Your task to perform on an android device: Go to Reddit.com Image 0: 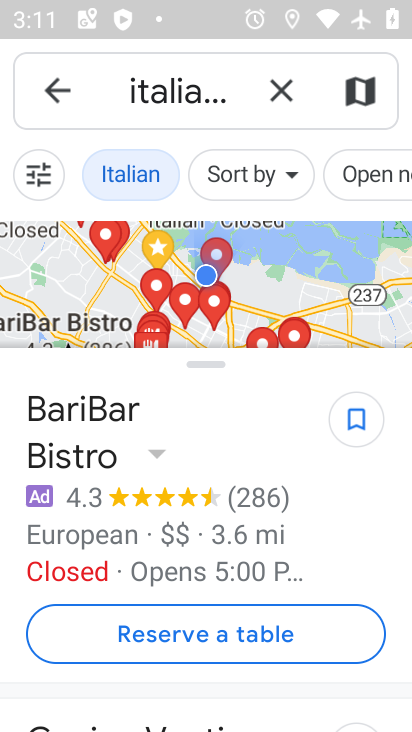
Step 0: press home button
Your task to perform on an android device: Go to Reddit.com Image 1: 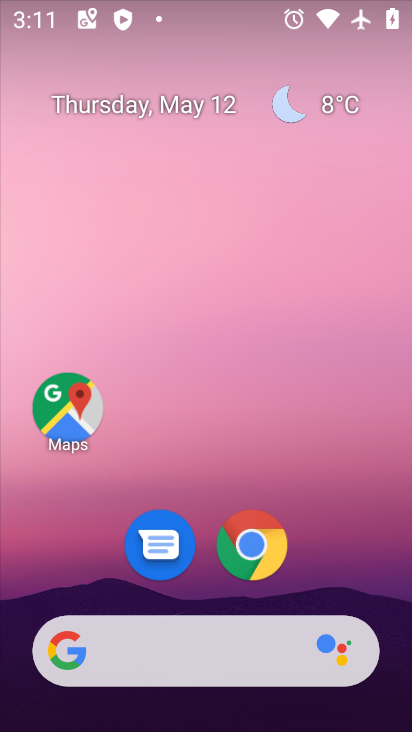
Step 1: click (255, 553)
Your task to perform on an android device: Go to Reddit.com Image 2: 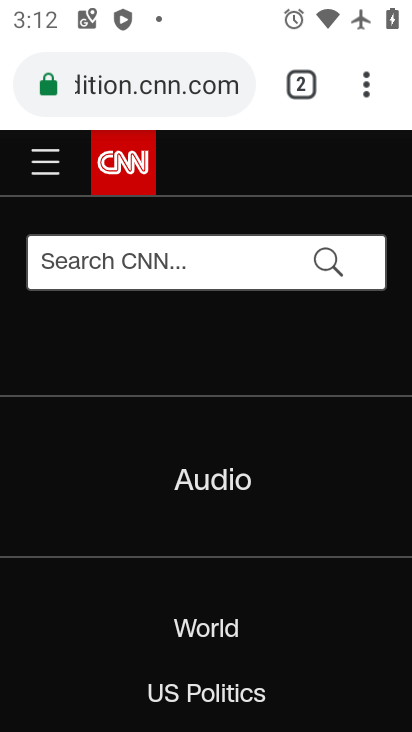
Step 2: click (147, 83)
Your task to perform on an android device: Go to Reddit.com Image 3: 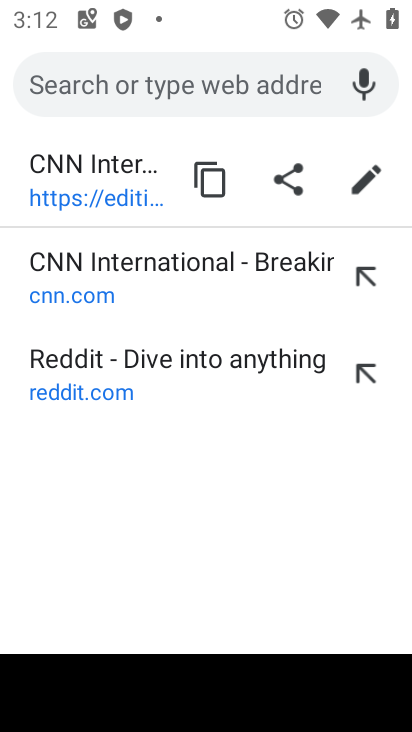
Step 3: type "reddit.com"
Your task to perform on an android device: Go to Reddit.com Image 4: 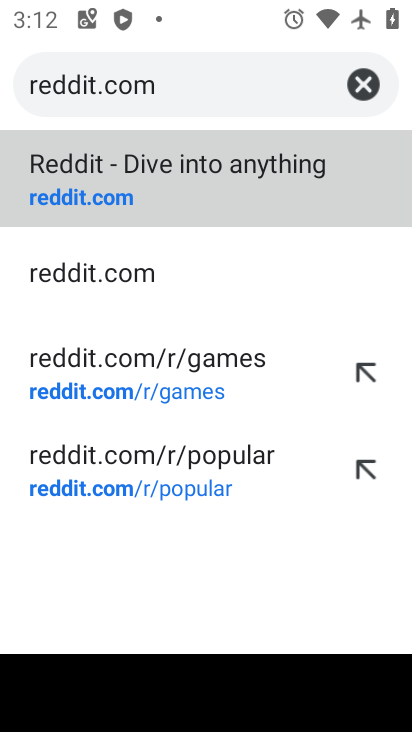
Step 4: click (58, 158)
Your task to perform on an android device: Go to Reddit.com Image 5: 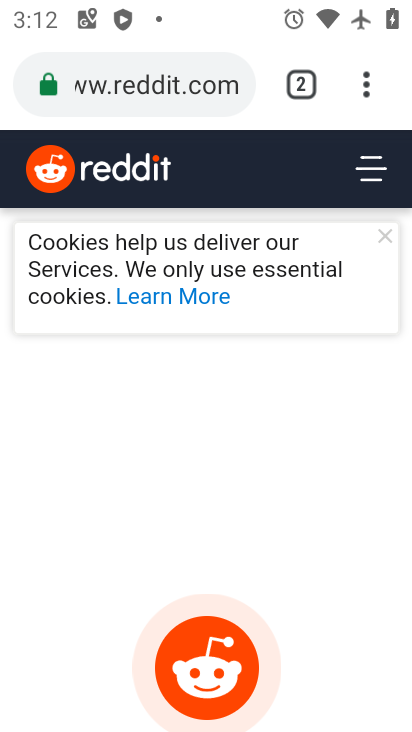
Step 5: task complete